Your task to perform on an android device: turn off data saver in the chrome app Image 0: 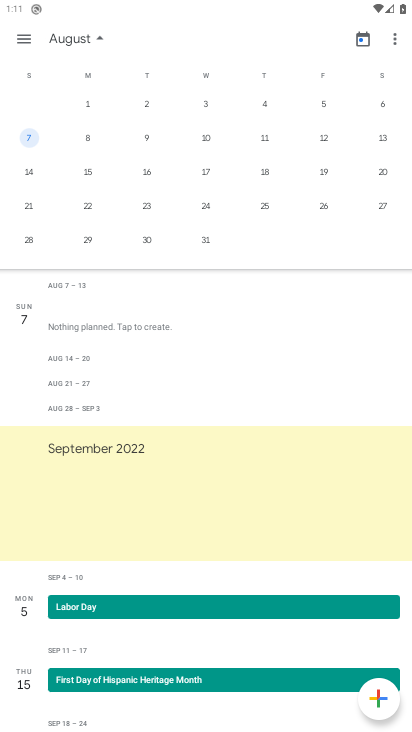
Step 0: press home button
Your task to perform on an android device: turn off data saver in the chrome app Image 1: 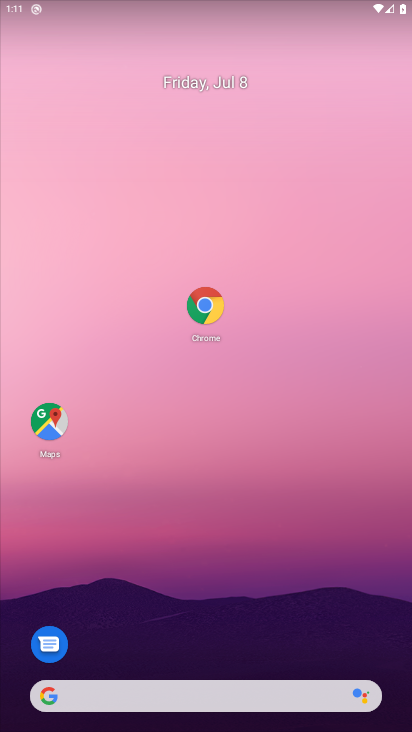
Step 1: click (208, 312)
Your task to perform on an android device: turn off data saver in the chrome app Image 2: 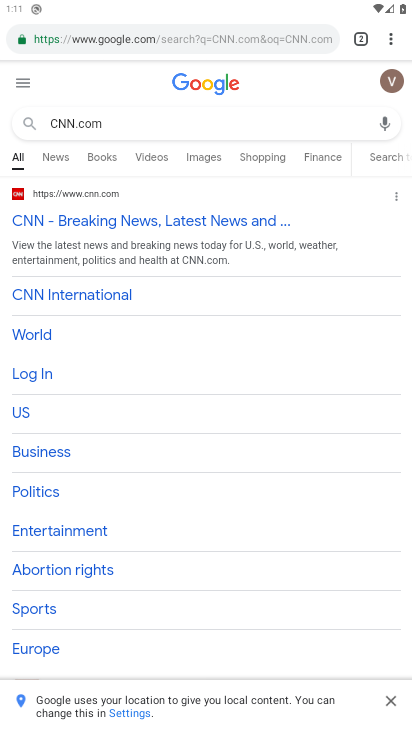
Step 2: click (393, 41)
Your task to perform on an android device: turn off data saver in the chrome app Image 3: 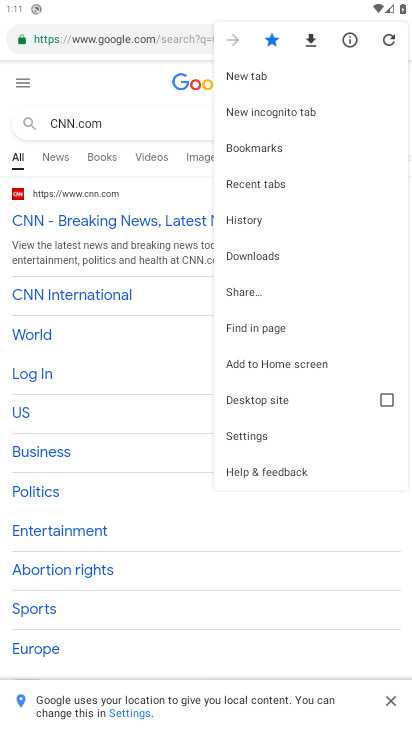
Step 3: click (248, 437)
Your task to perform on an android device: turn off data saver in the chrome app Image 4: 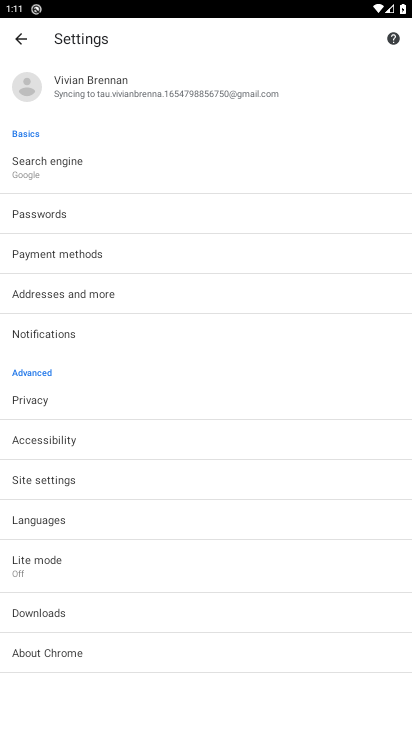
Step 4: click (44, 569)
Your task to perform on an android device: turn off data saver in the chrome app Image 5: 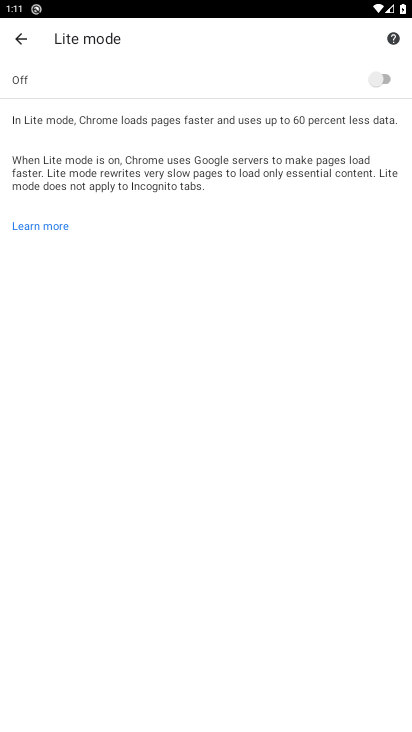
Step 5: task complete